Your task to perform on an android device: turn on sleep mode Image 0: 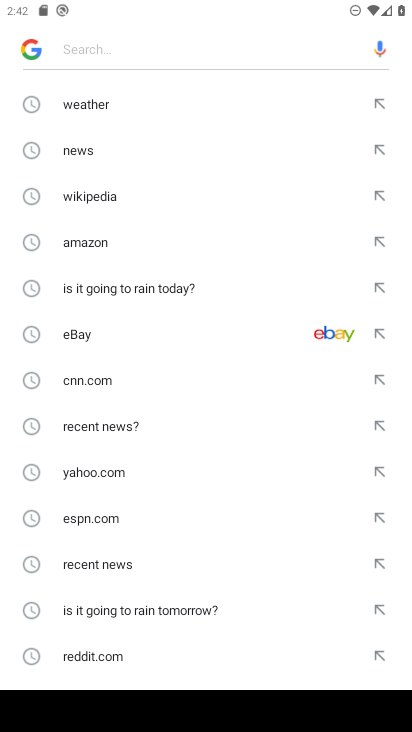
Step 0: press home button
Your task to perform on an android device: turn on sleep mode Image 1: 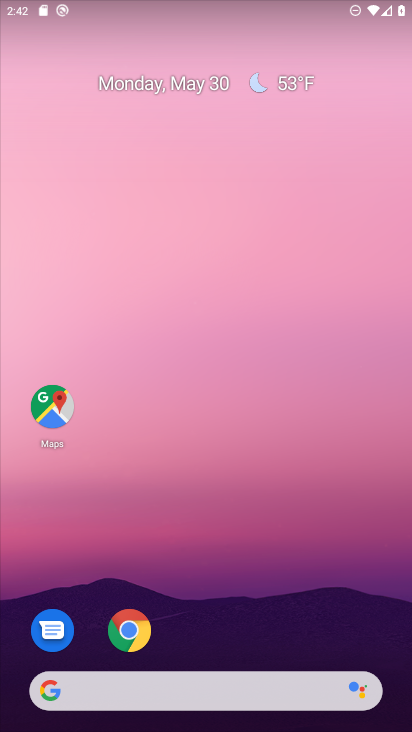
Step 1: drag from (175, 679) to (209, 76)
Your task to perform on an android device: turn on sleep mode Image 2: 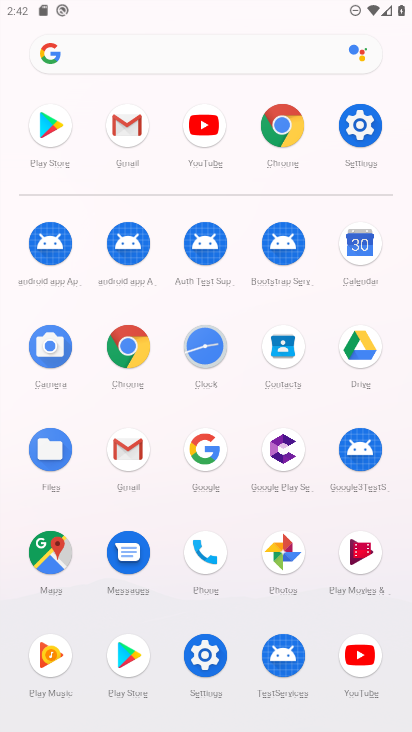
Step 2: click (358, 120)
Your task to perform on an android device: turn on sleep mode Image 3: 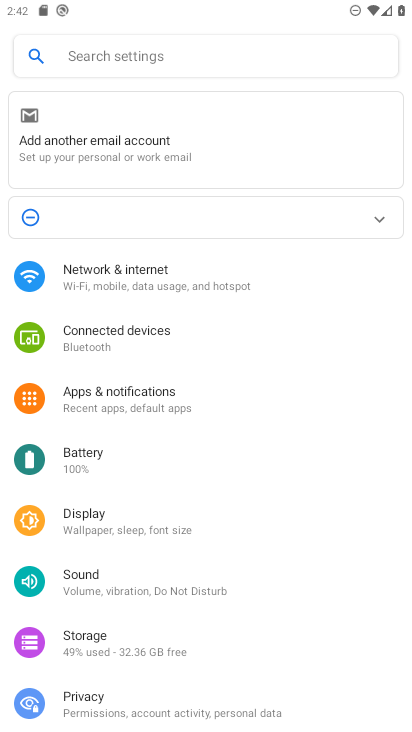
Step 3: click (98, 508)
Your task to perform on an android device: turn on sleep mode Image 4: 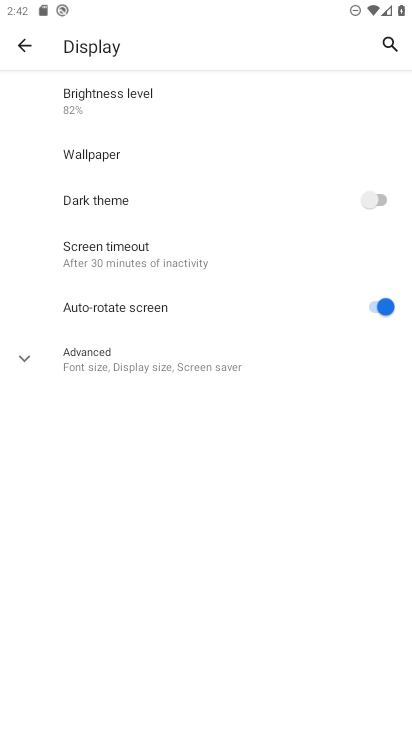
Step 4: click (131, 360)
Your task to perform on an android device: turn on sleep mode Image 5: 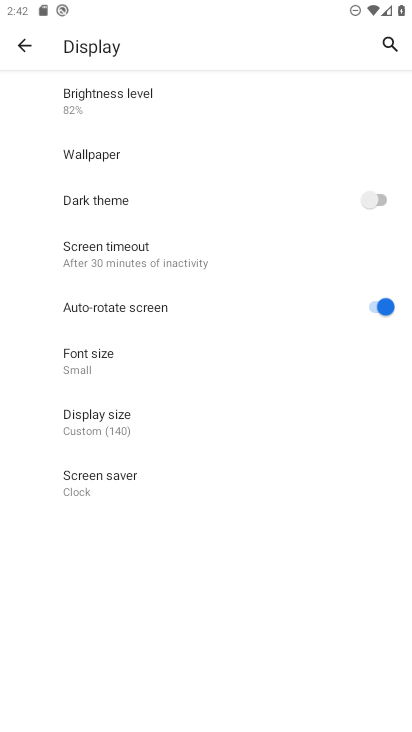
Step 5: task complete